Your task to perform on an android device: all mails in gmail Image 0: 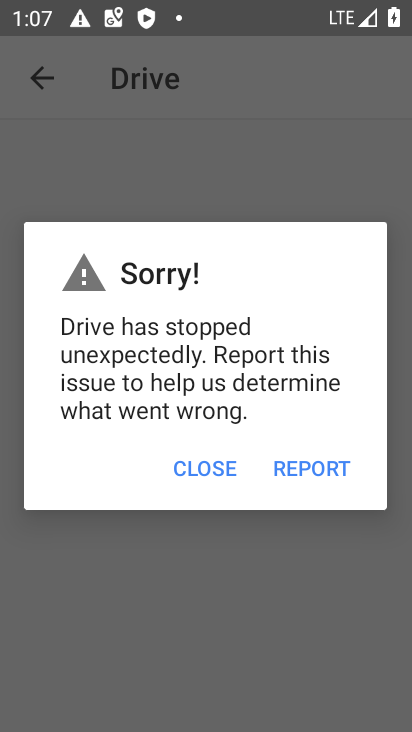
Step 0: press home button
Your task to perform on an android device: all mails in gmail Image 1: 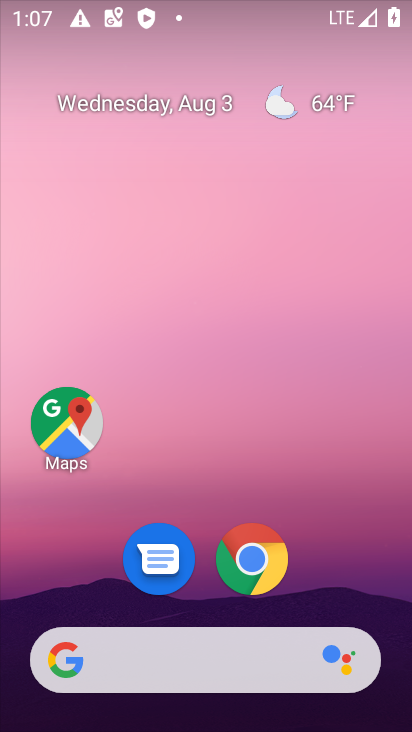
Step 1: drag from (208, 618) to (187, 16)
Your task to perform on an android device: all mails in gmail Image 2: 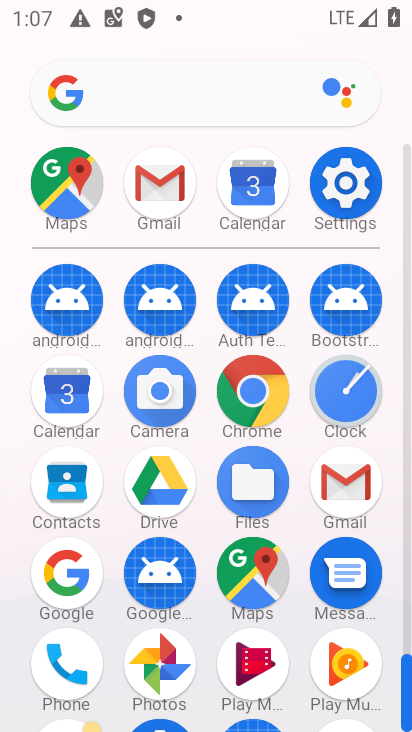
Step 2: click (341, 482)
Your task to perform on an android device: all mails in gmail Image 3: 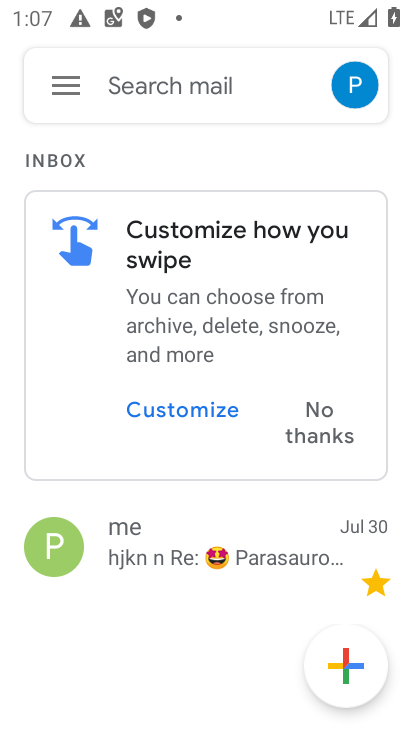
Step 3: click (64, 79)
Your task to perform on an android device: all mails in gmail Image 4: 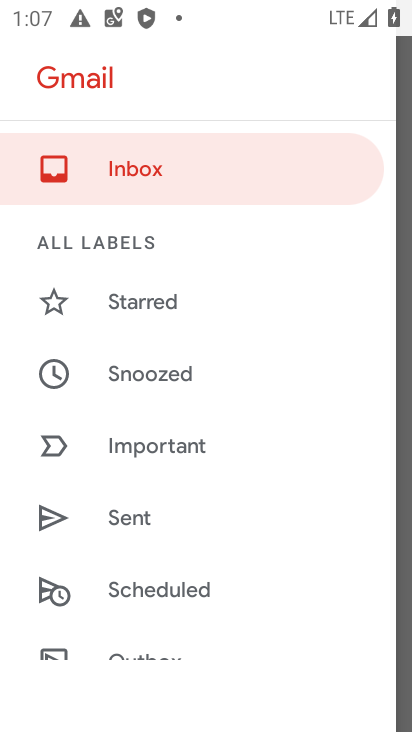
Step 4: drag from (154, 622) to (180, 190)
Your task to perform on an android device: all mails in gmail Image 5: 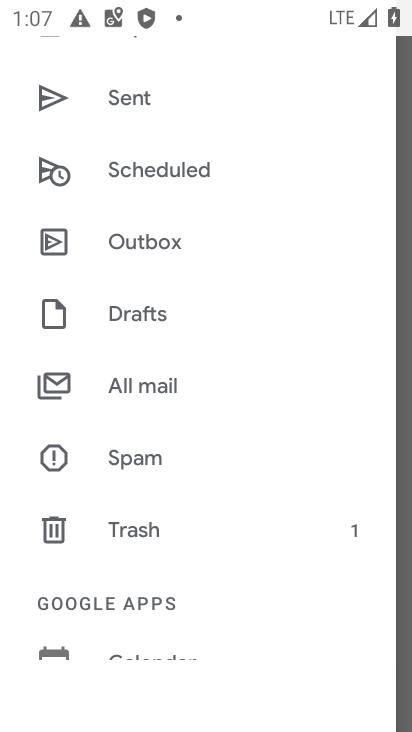
Step 5: click (144, 382)
Your task to perform on an android device: all mails in gmail Image 6: 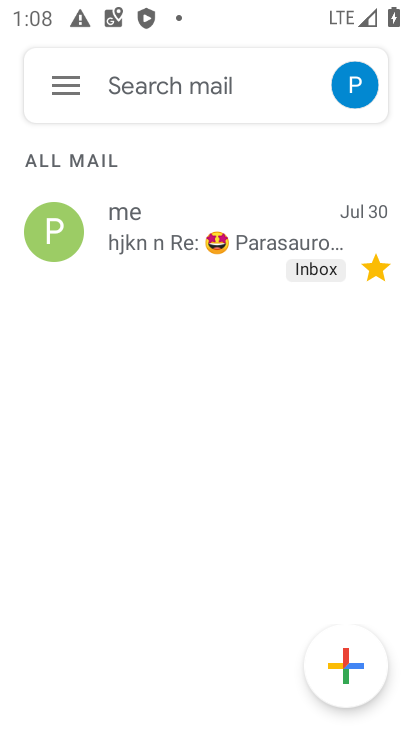
Step 6: task complete